Your task to perform on an android device: Open CNN.com Image 0: 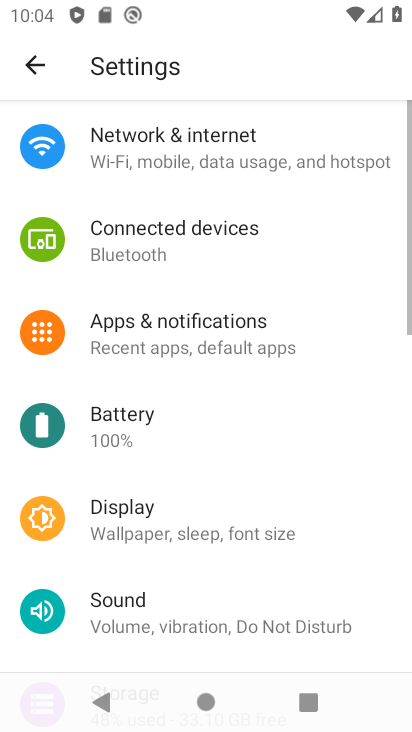
Step 0: click (33, 58)
Your task to perform on an android device: Open CNN.com Image 1: 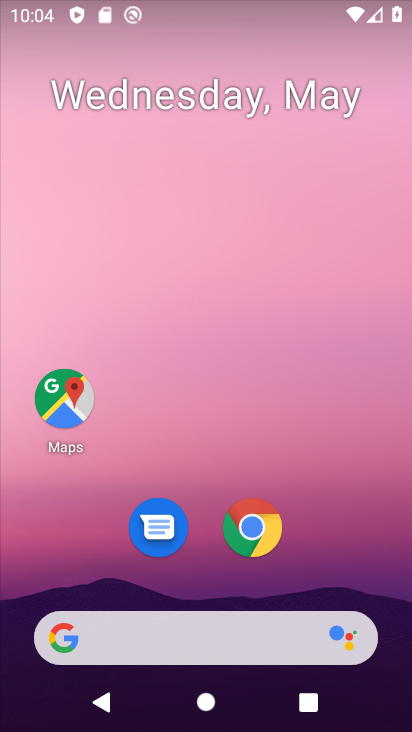
Step 1: drag from (265, 696) to (154, 154)
Your task to perform on an android device: Open CNN.com Image 2: 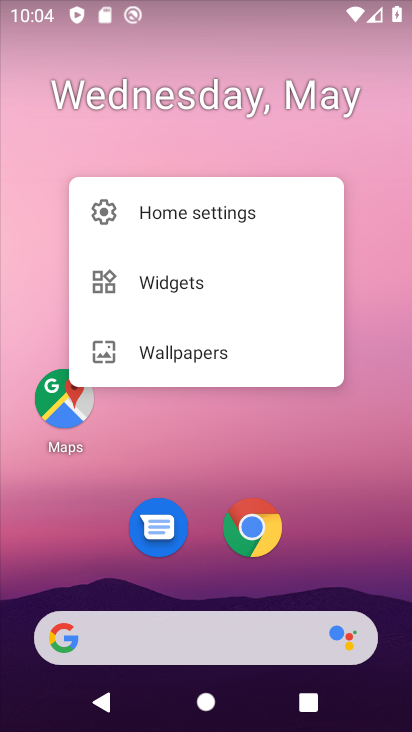
Step 2: drag from (262, 656) to (247, 95)
Your task to perform on an android device: Open CNN.com Image 3: 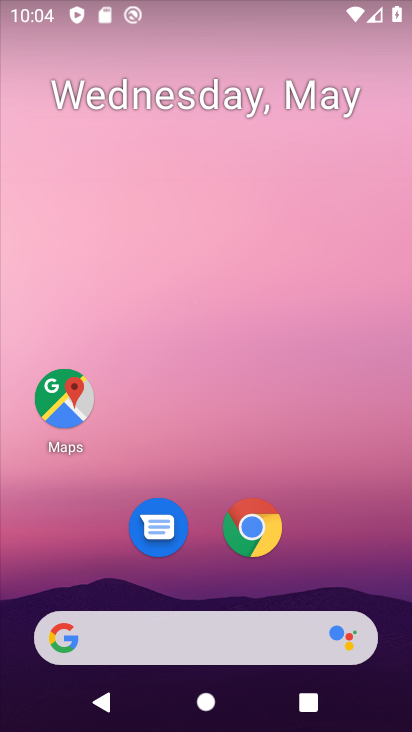
Step 3: drag from (361, 361) to (320, 71)
Your task to perform on an android device: Open CNN.com Image 4: 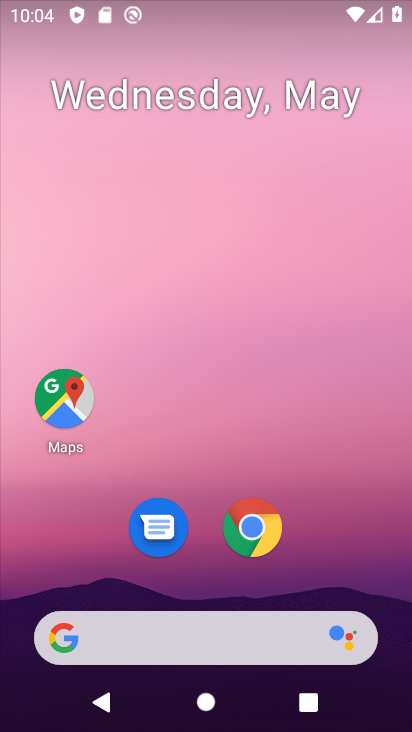
Step 4: drag from (259, 564) to (205, 61)
Your task to perform on an android device: Open CNN.com Image 5: 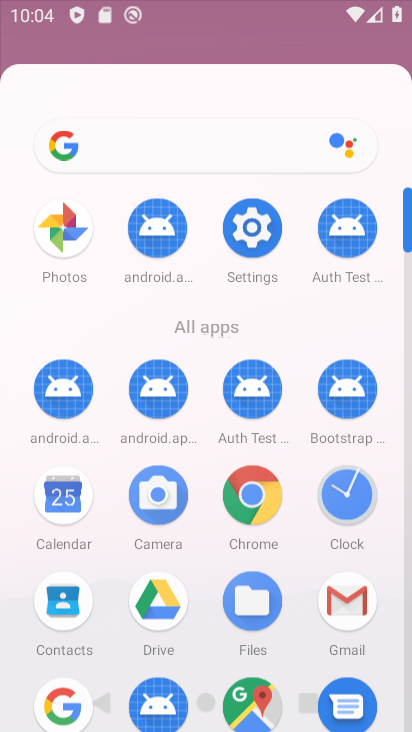
Step 5: drag from (254, 560) to (174, 39)
Your task to perform on an android device: Open CNN.com Image 6: 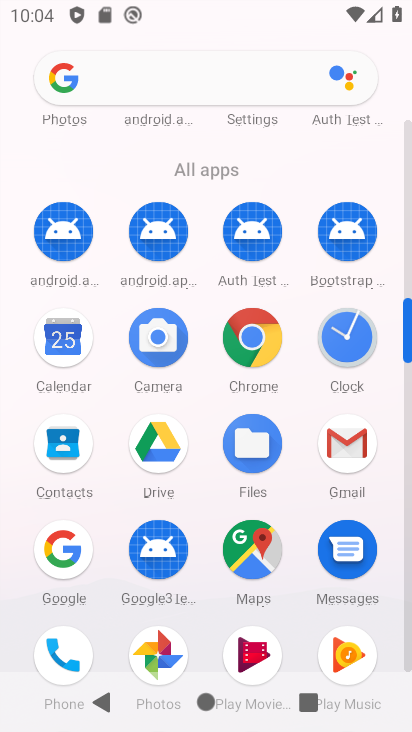
Step 6: drag from (218, 578) to (184, 104)
Your task to perform on an android device: Open CNN.com Image 7: 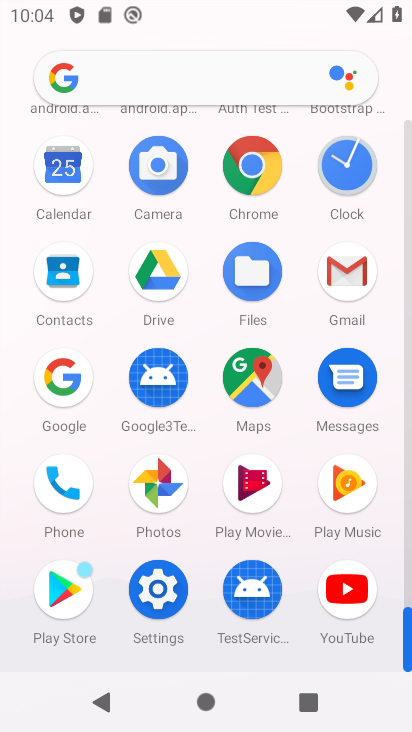
Step 7: drag from (169, 512) to (152, 47)
Your task to perform on an android device: Open CNN.com Image 8: 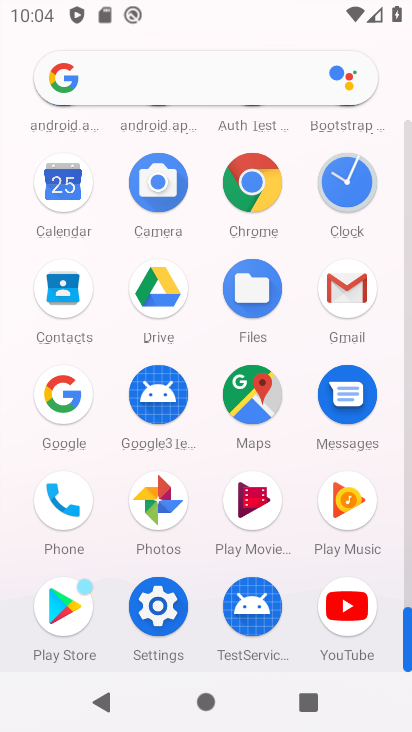
Step 8: click (159, 609)
Your task to perform on an android device: Open CNN.com Image 9: 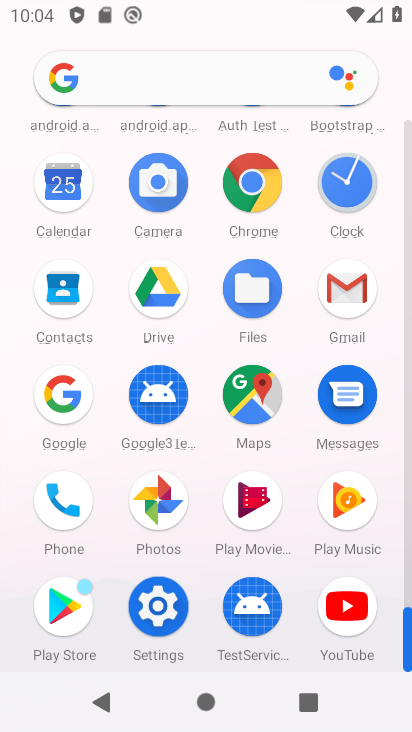
Step 9: click (157, 609)
Your task to perform on an android device: Open CNN.com Image 10: 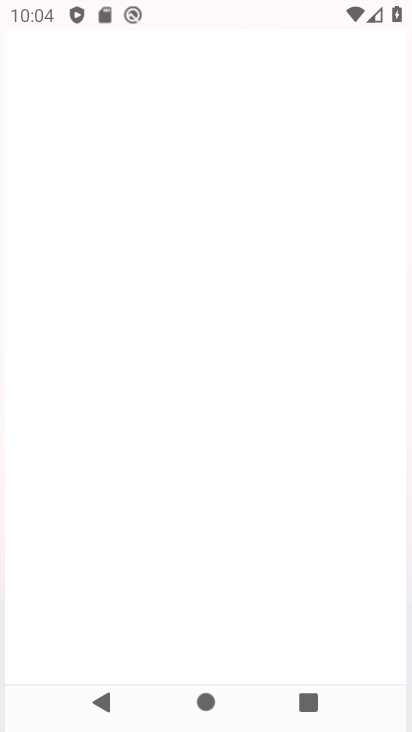
Step 10: click (157, 609)
Your task to perform on an android device: Open CNN.com Image 11: 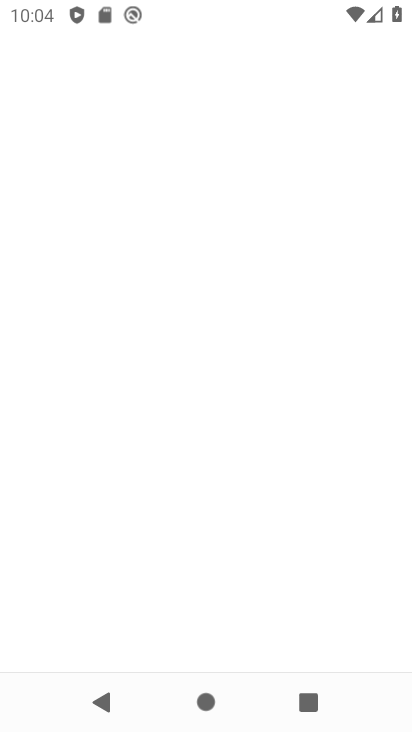
Step 11: click (156, 609)
Your task to perform on an android device: Open CNN.com Image 12: 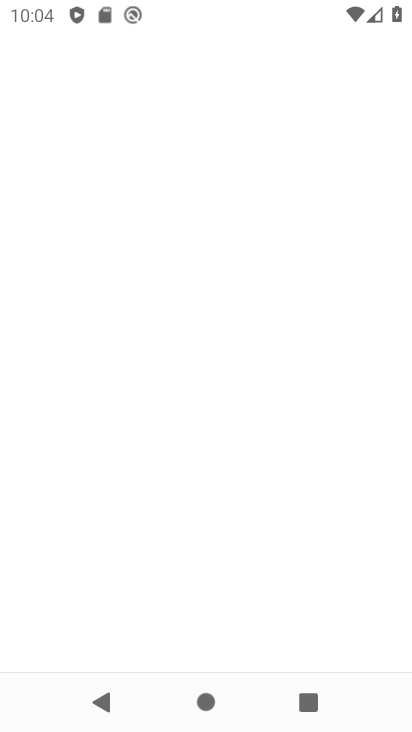
Step 12: click (154, 603)
Your task to perform on an android device: Open CNN.com Image 13: 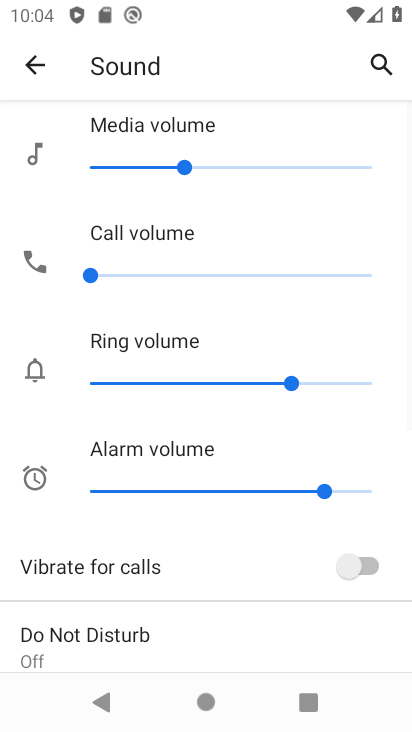
Step 13: press home button
Your task to perform on an android device: Open CNN.com Image 14: 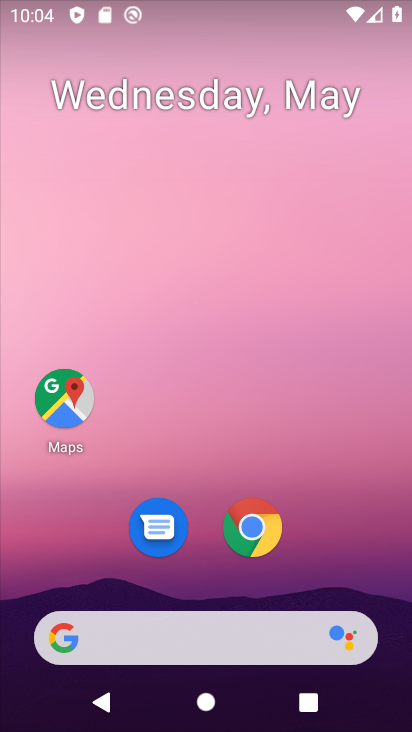
Step 14: drag from (250, 567) to (244, 108)
Your task to perform on an android device: Open CNN.com Image 15: 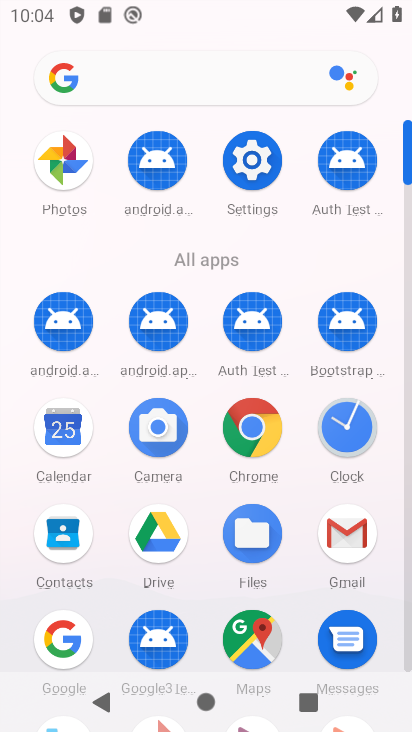
Step 15: click (256, 420)
Your task to perform on an android device: Open CNN.com Image 16: 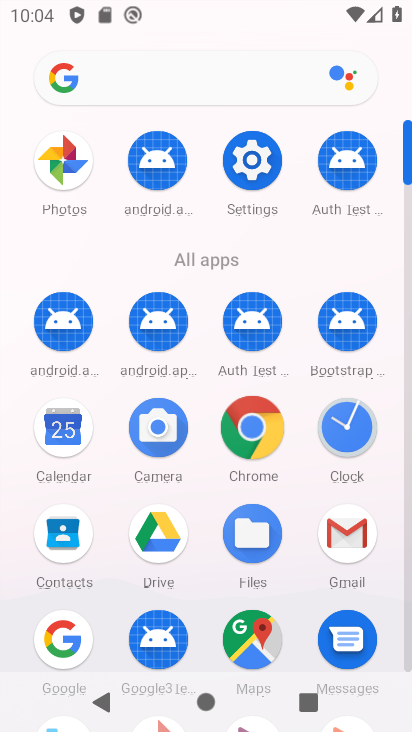
Step 16: click (255, 420)
Your task to perform on an android device: Open CNN.com Image 17: 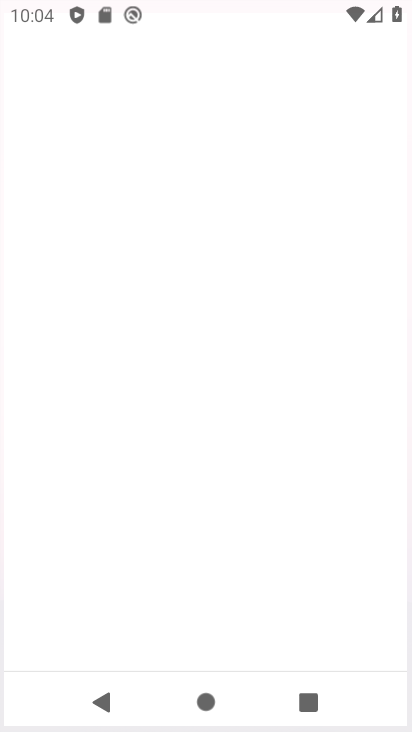
Step 17: click (255, 420)
Your task to perform on an android device: Open CNN.com Image 18: 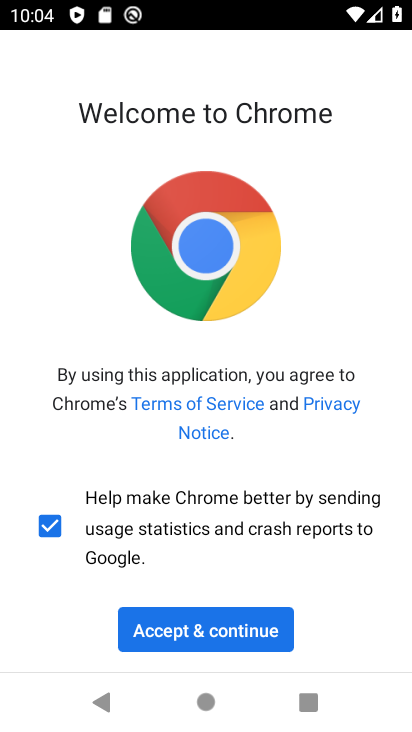
Step 18: click (195, 626)
Your task to perform on an android device: Open CNN.com Image 19: 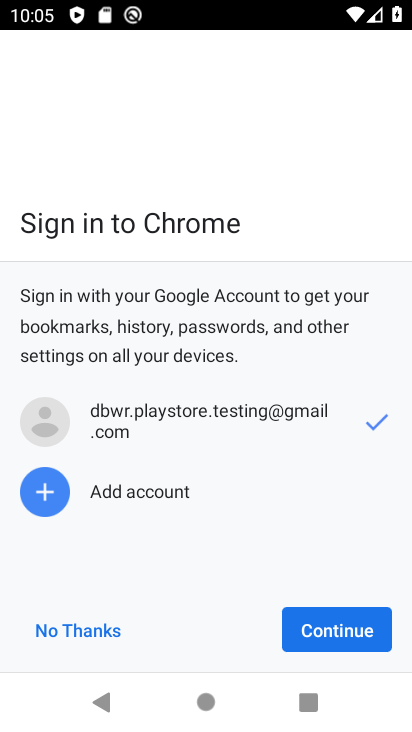
Step 19: click (363, 631)
Your task to perform on an android device: Open CNN.com Image 20: 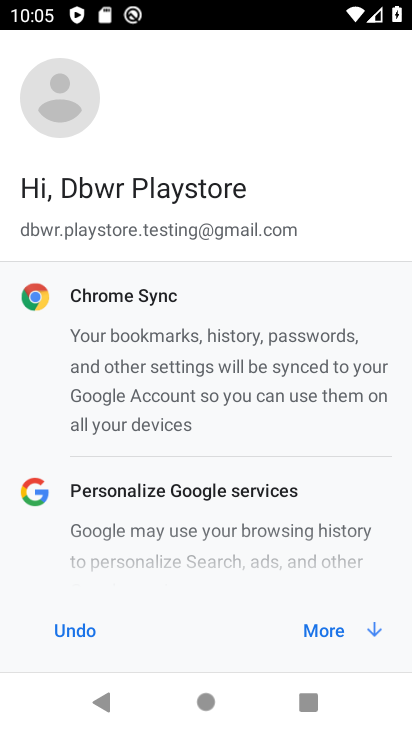
Step 20: click (325, 642)
Your task to perform on an android device: Open CNN.com Image 21: 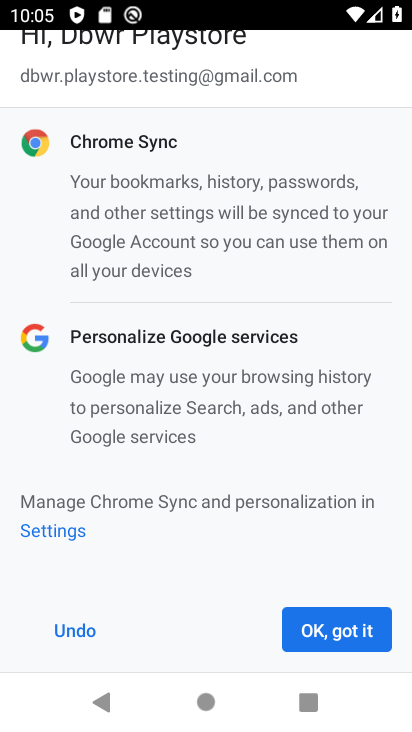
Step 21: click (342, 622)
Your task to perform on an android device: Open CNN.com Image 22: 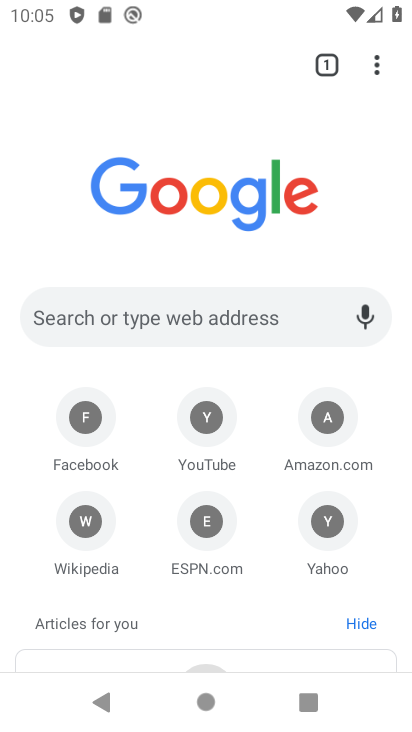
Step 22: click (42, 61)
Your task to perform on an android device: Open CNN.com Image 23: 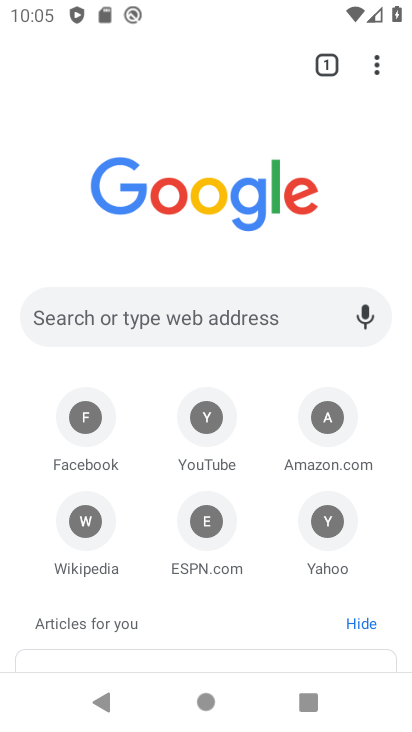
Step 23: click (56, 326)
Your task to perform on an android device: Open CNN.com Image 24: 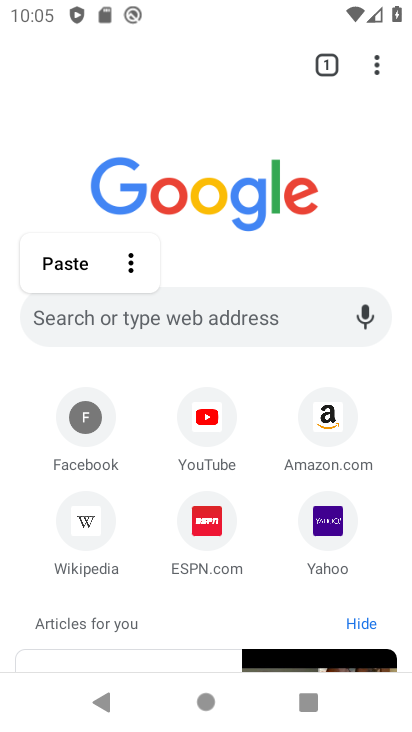
Step 24: type "cnn.com"
Your task to perform on an android device: Open CNN.com Image 25: 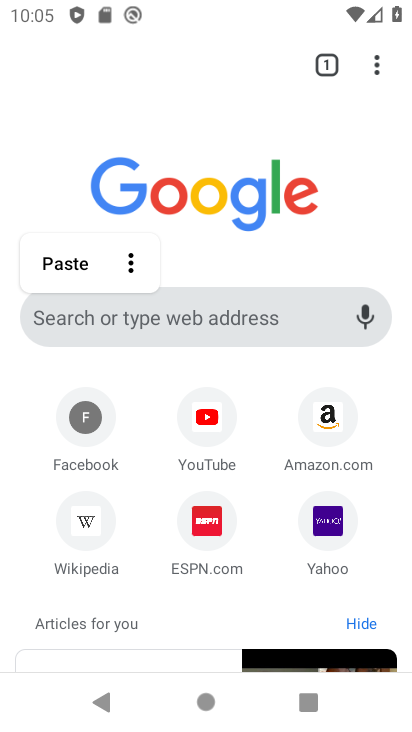
Step 25: click (65, 305)
Your task to perform on an android device: Open CNN.com Image 26: 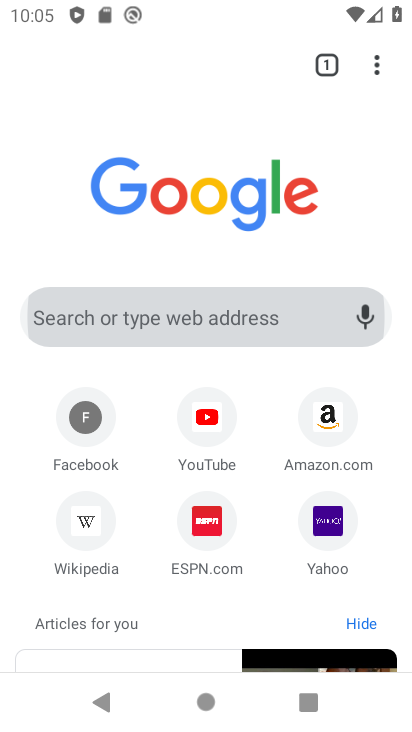
Step 26: click (65, 308)
Your task to perform on an android device: Open CNN.com Image 27: 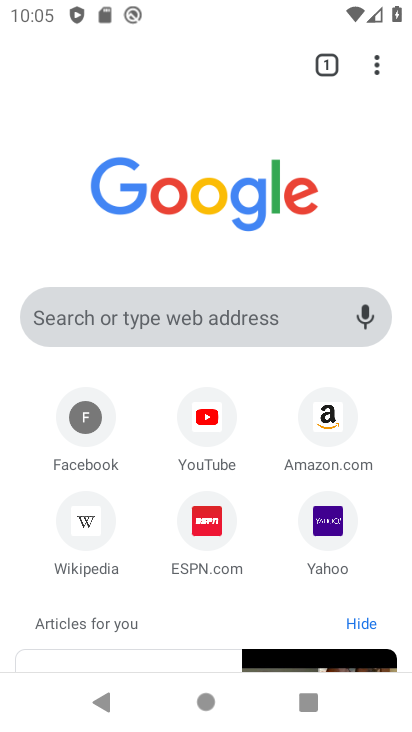
Step 27: click (65, 308)
Your task to perform on an android device: Open CNN.com Image 28: 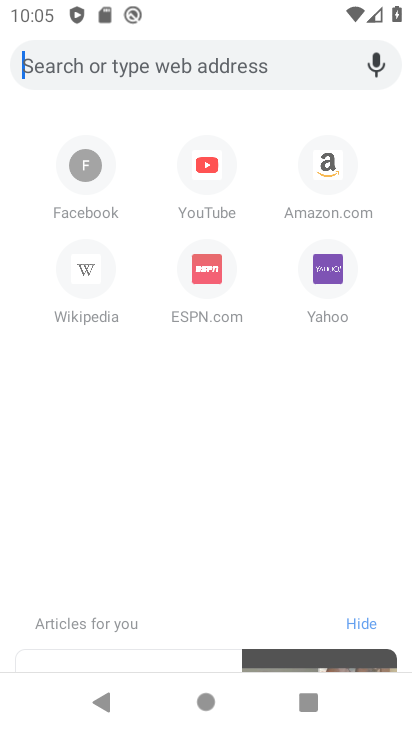
Step 28: click (65, 308)
Your task to perform on an android device: Open CNN.com Image 29: 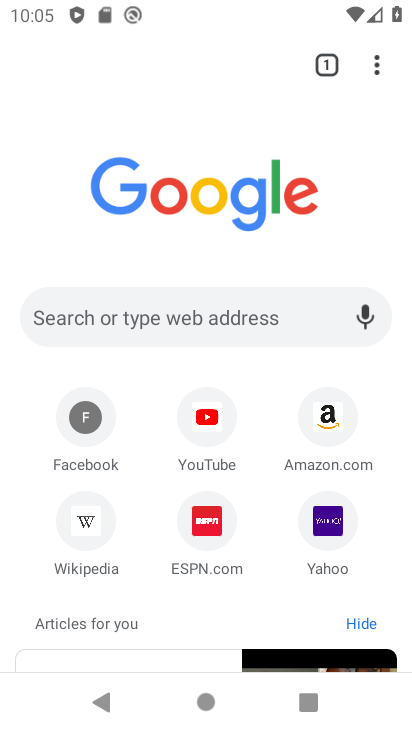
Step 29: click (33, 317)
Your task to perform on an android device: Open CNN.com Image 30: 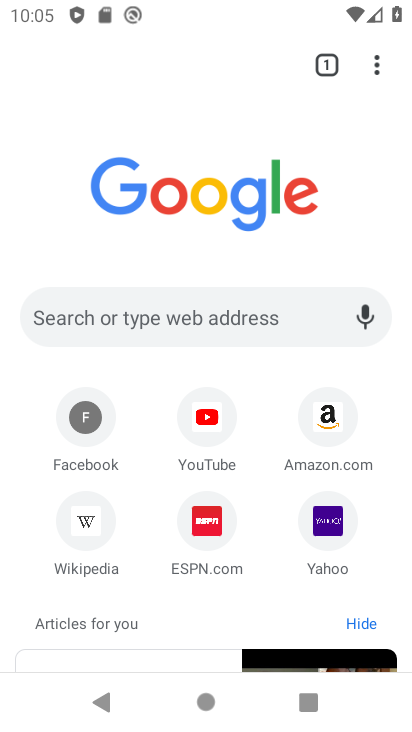
Step 30: click (38, 316)
Your task to perform on an android device: Open CNN.com Image 31: 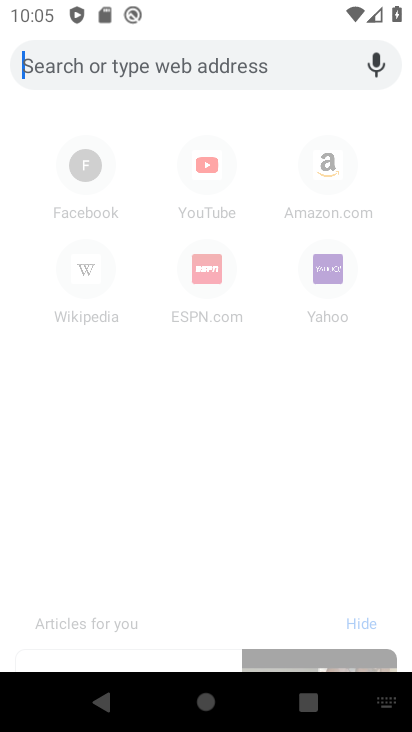
Step 31: type "cnn.com"
Your task to perform on an android device: Open CNN.com Image 32: 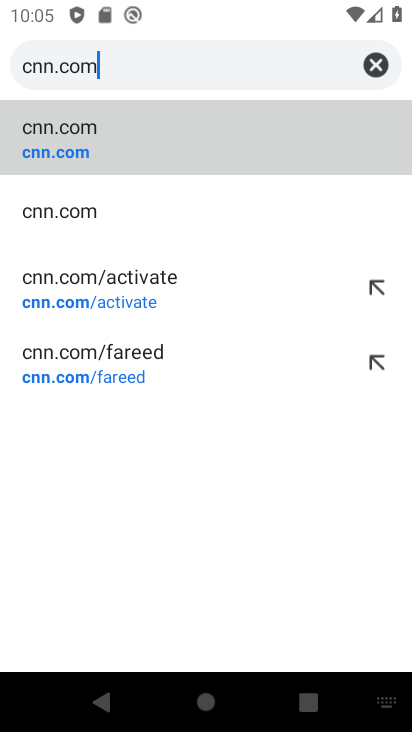
Step 32: click (64, 152)
Your task to perform on an android device: Open CNN.com Image 33: 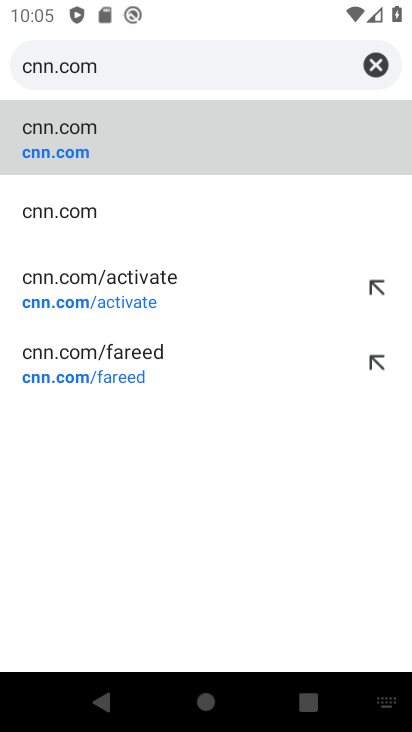
Step 33: click (59, 135)
Your task to perform on an android device: Open CNN.com Image 34: 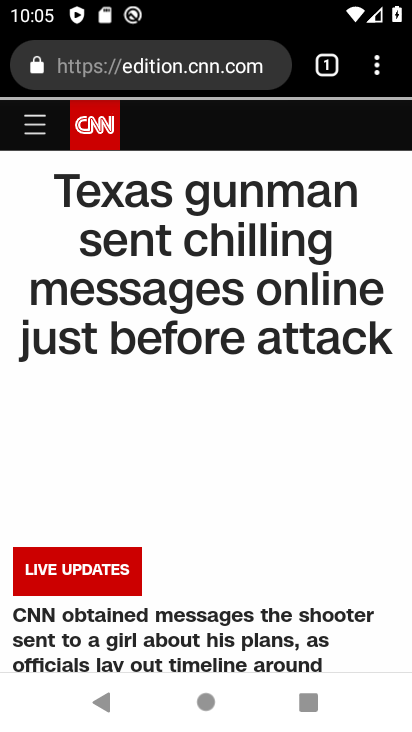
Step 34: task complete